Your task to perform on an android device: uninstall "Viber Messenger" Image 0: 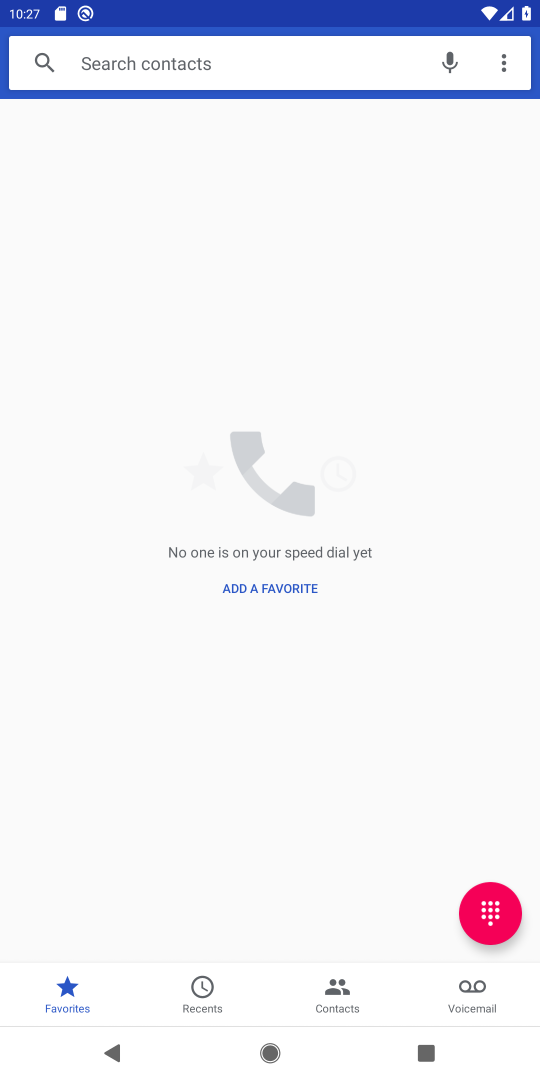
Step 0: task impossible